Your task to perform on an android device: Show me productivity apps on the Play Store Image 0: 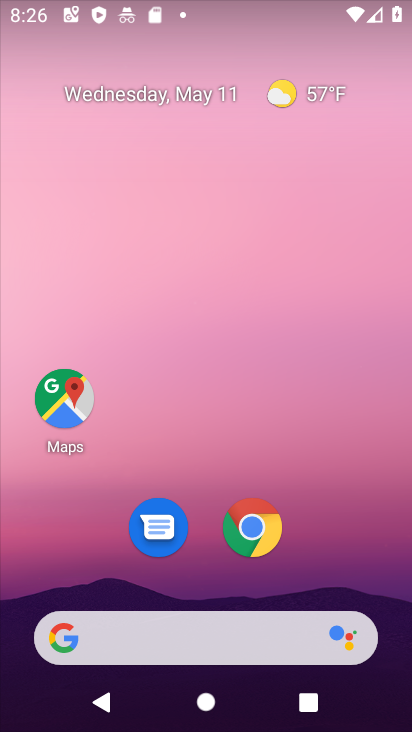
Step 0: drag from (358, 582) to (390, 0)
Your task to perform on an android device: Show me productivity apps on the Play Store Image 1: 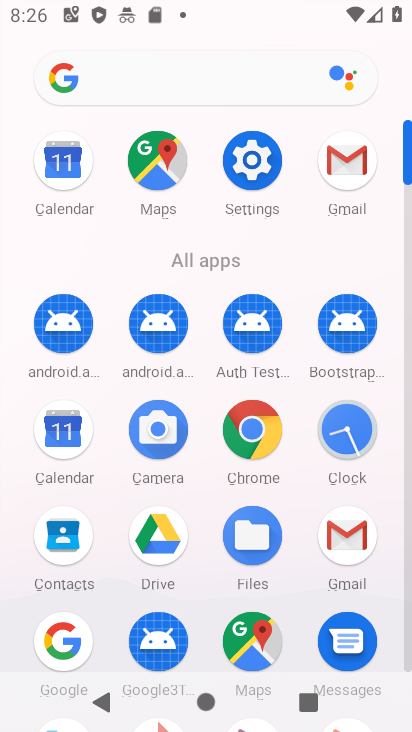
Step 1: click (403, 533)
Your task to perform on an android device: Show me productivity apps on the Play Store Image 2: 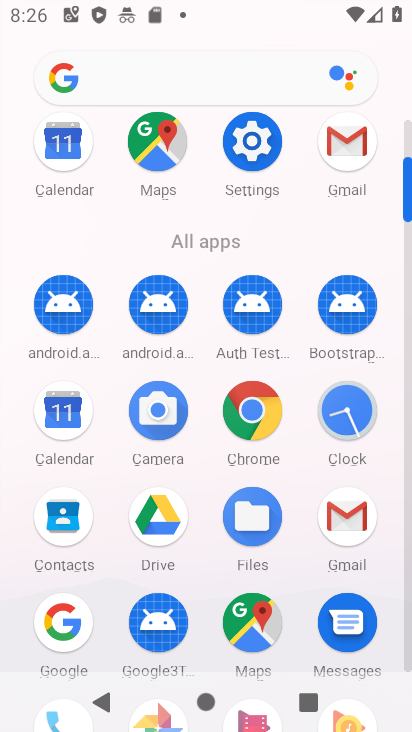
Step 2: click (409, 507)
Your task to perform on an android device: Show me productivity apps on the Play Store Image 3: 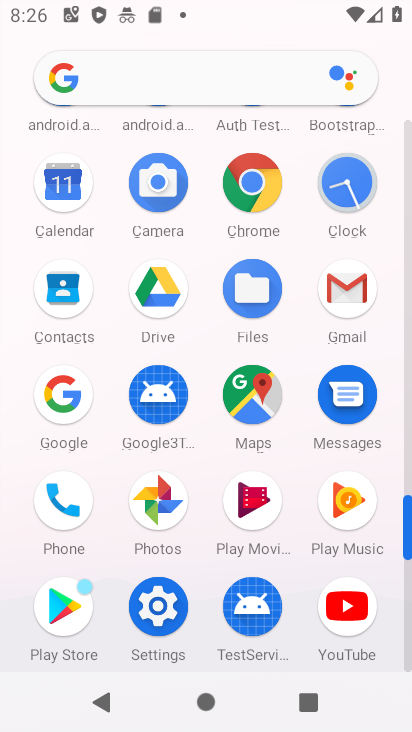
Step 3: click (74, 609)
Your task to perform on an android device: Show me productivity apps on the Play Store Image 4: 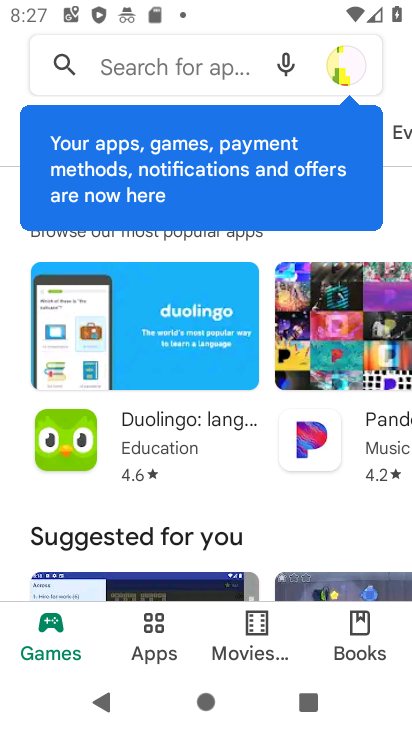
Step 4: click (153, 650)
Your task to perform on an android device: Show me productivity apps on the Play Store Image 5: 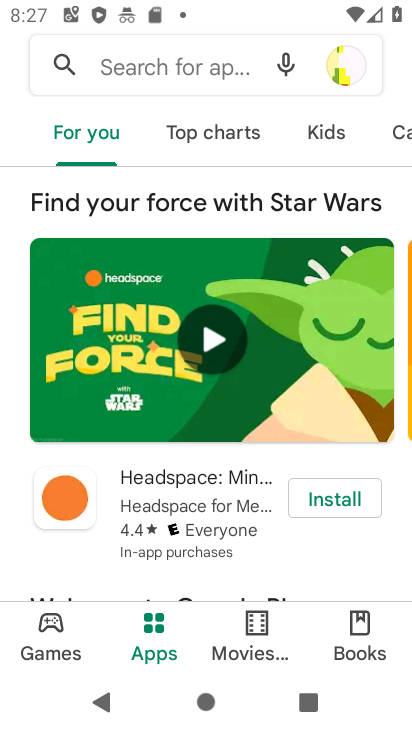
Step 5: drag from (316, 150) to (204, 167)
Your task to perform on an android device: Show me productivity apps on the Play Store Image 6: 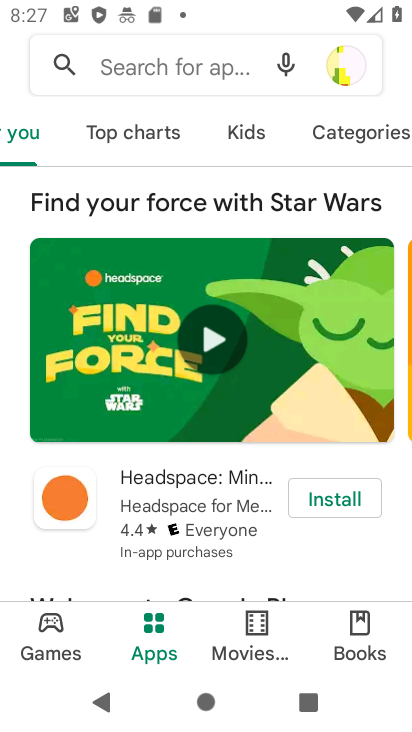
Step 6: click (351, 136)
Your task to perform on an android device: Show me productivity apps on the Play Store Image 7: 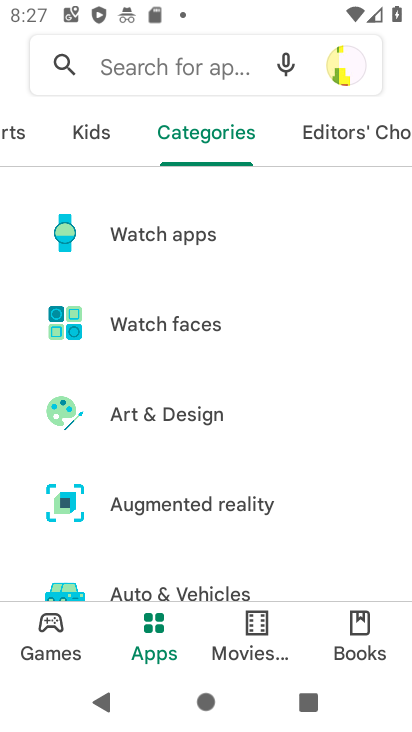
Step 7: drag from (291, 337) to (287, 51)
Your task to perform on an android device: Show me productivity apps on the Play Store Image 8: 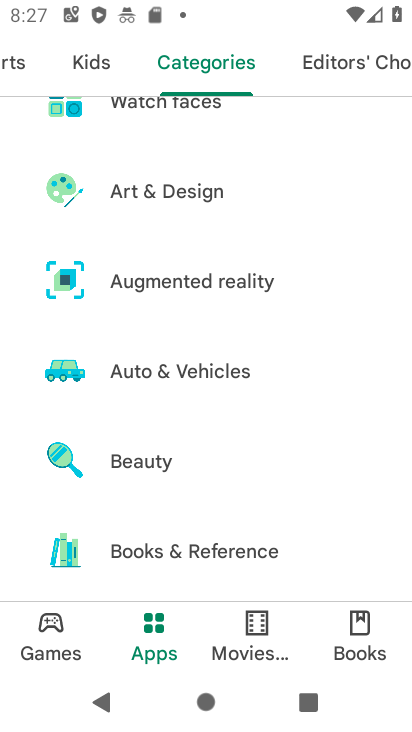
Step 8: drag from (248, 499) to (254, 87)
Your task to perform on an android device: Show me productivity apps on the Play Store Image 9: 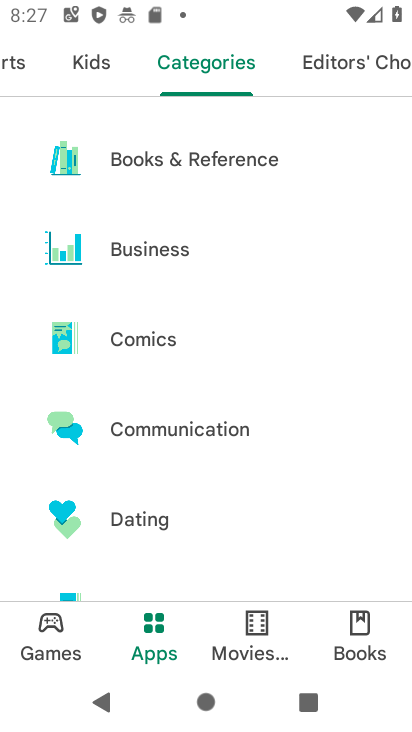
Step 9: drag from (242, 453) to (250, 29)
Your task to perform on an android device: Show me productivity apps on the Play Store Image 10: 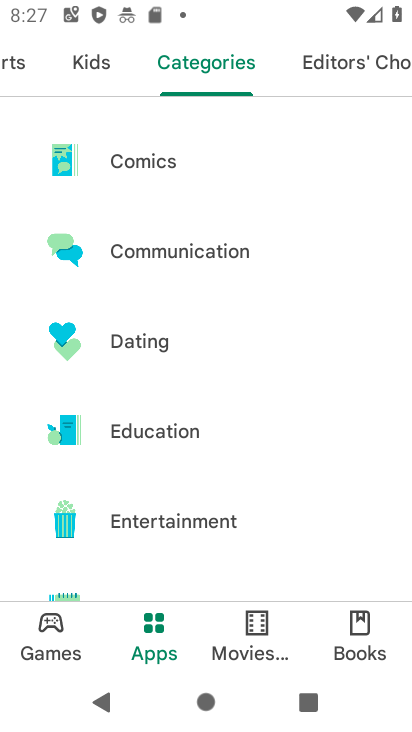
Step 10: drag from (236, 485) to (230, 98)
Your task to perform on an android device: Show me productivity apps on the Play Store Image 11: 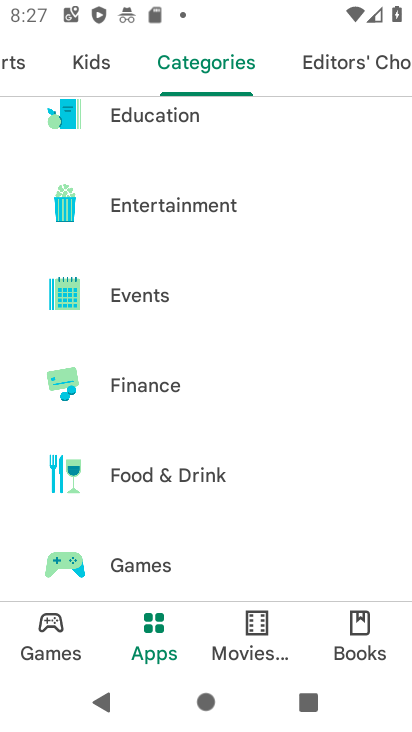
Step 11: drag from (255, 460) to (248, 17)
Your task to perform on an android device: Show me productivity apps on the Play Store Image 12: 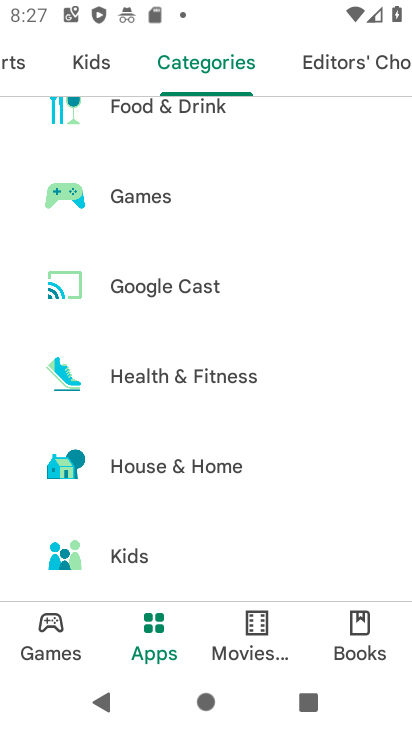
Step 12: drag from (213, 314) to (202, 111)
Your task to perform on an android device: Show me productivity apps on the Play Store Image 13: 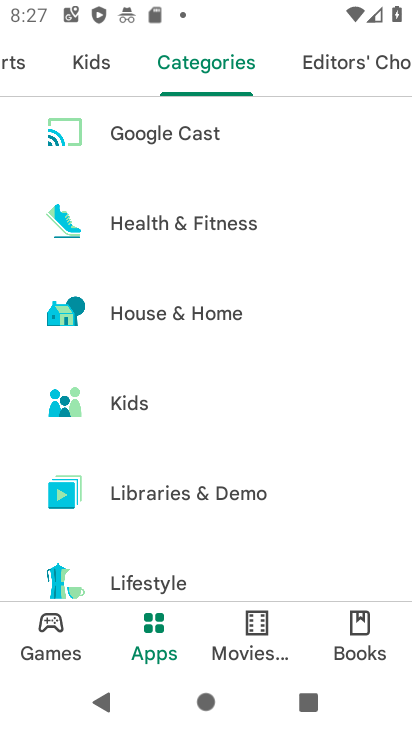
Step 13: drag from (212, 381) to (200, 96)
Your task to perform on an android device: Show me productivity apps on the Play Store Image 14: 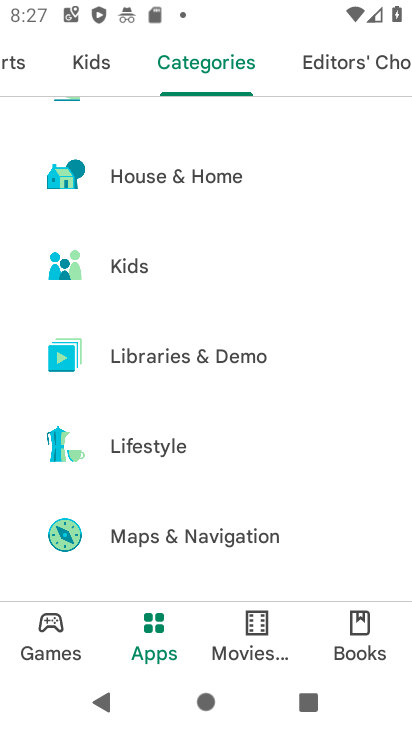
Step 14: drag from (208, 260) to (189, 133)
Your task to perform on an android device: Show me productivity apps on the Play Store Image 15: 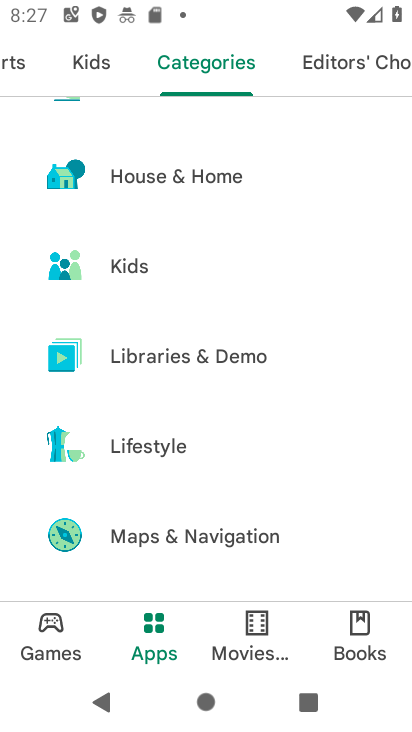
Step 15: drag from (298, 478) to (275, 140)
Your task to perform on an android device: Show me productivity apps on the Play Store Image 16: 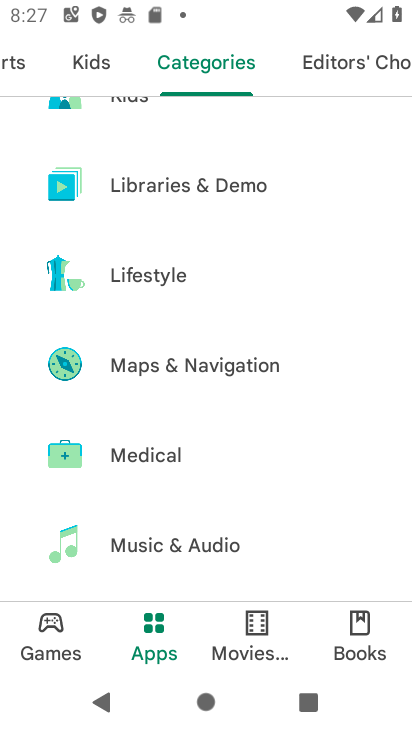
Step 16: drag from (284, 443) to (244, 93)
Your task to perform on an android device: Show me productivity apps on the Play Store Image 17: 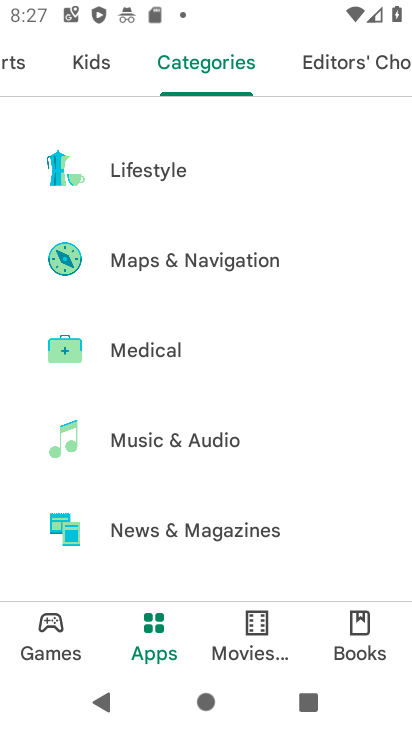
Step 17: drag from (302, 466) to (268, 109)
Your task to perform on an android device: Show me productivity apps on the Play Store Image 18: 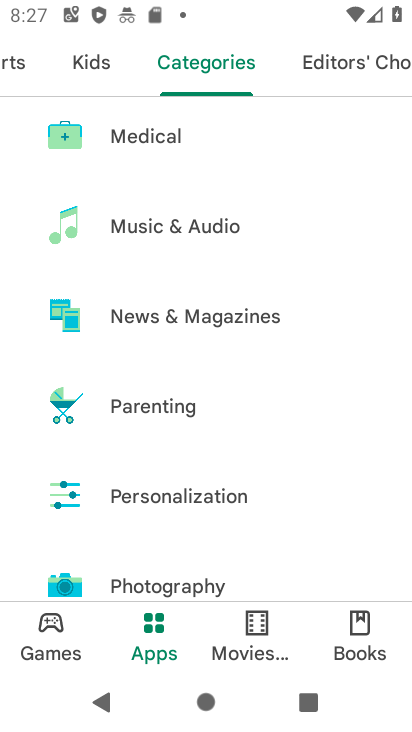
Step 18: drag from (268, 314) to (244, 137)
Your task to perform on an android device: Show me productivity apps on the Play Store Image 19: 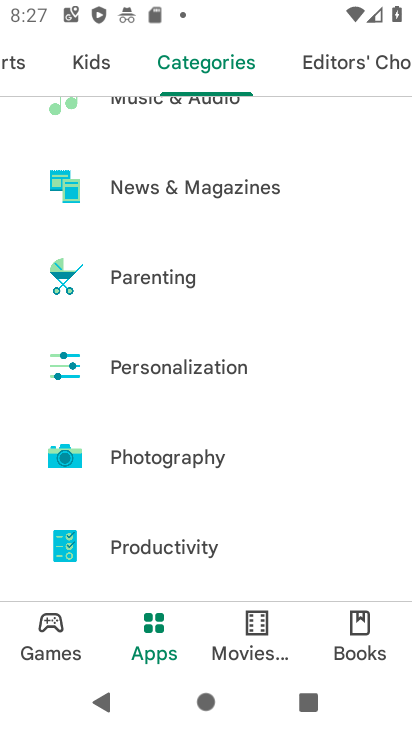
Step 19: drag from (276, 503) to (264, 253)
Your task to perform on an android device: Show me productivity apps on the Play Store Image 20: 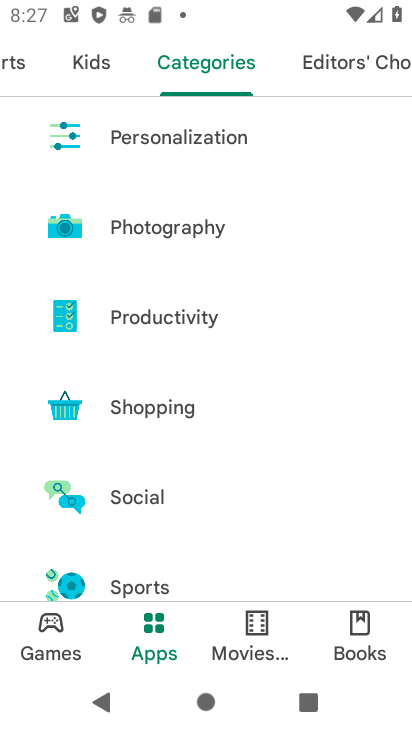
Step 20: click (143, 322)
Your task to perform on an android device: Show me productivity apps on the Play Store Image 21: 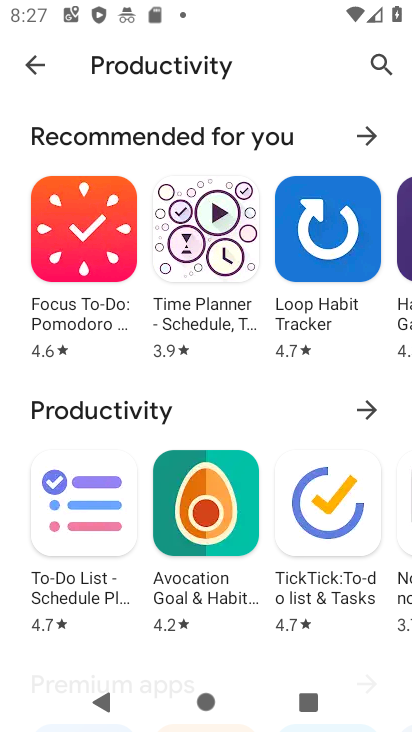
Step 21: task complete